Your task to perform on an android device: Show the shopping cart on walmart. Search for "usb-b" on walmart, select the first entry, and add it to the cart. Image 0: 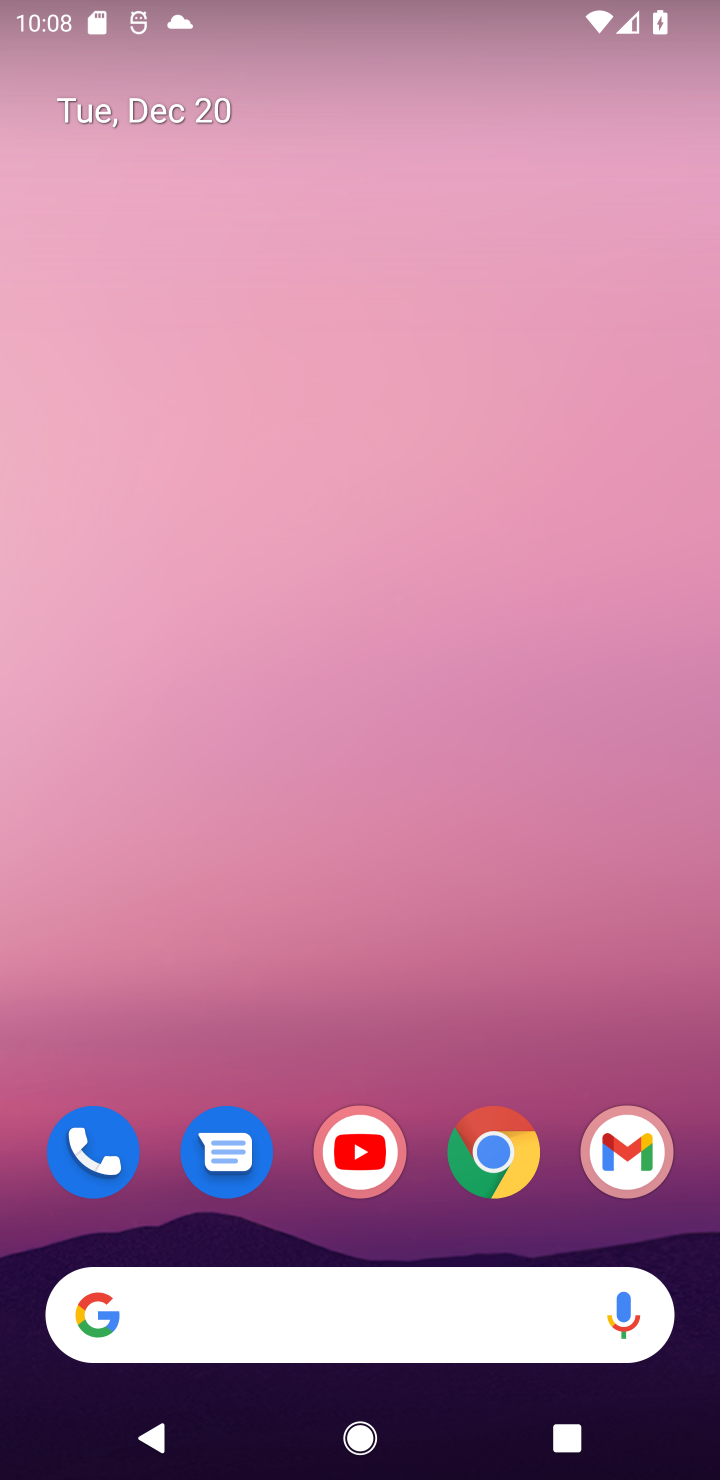
Step 0: click (508, 1140)
Your task to perform on an android device: Show the shopping cart on walmart. Search for "usb-b" on walmart, select the first entry, and add it to the cart. Image 1: 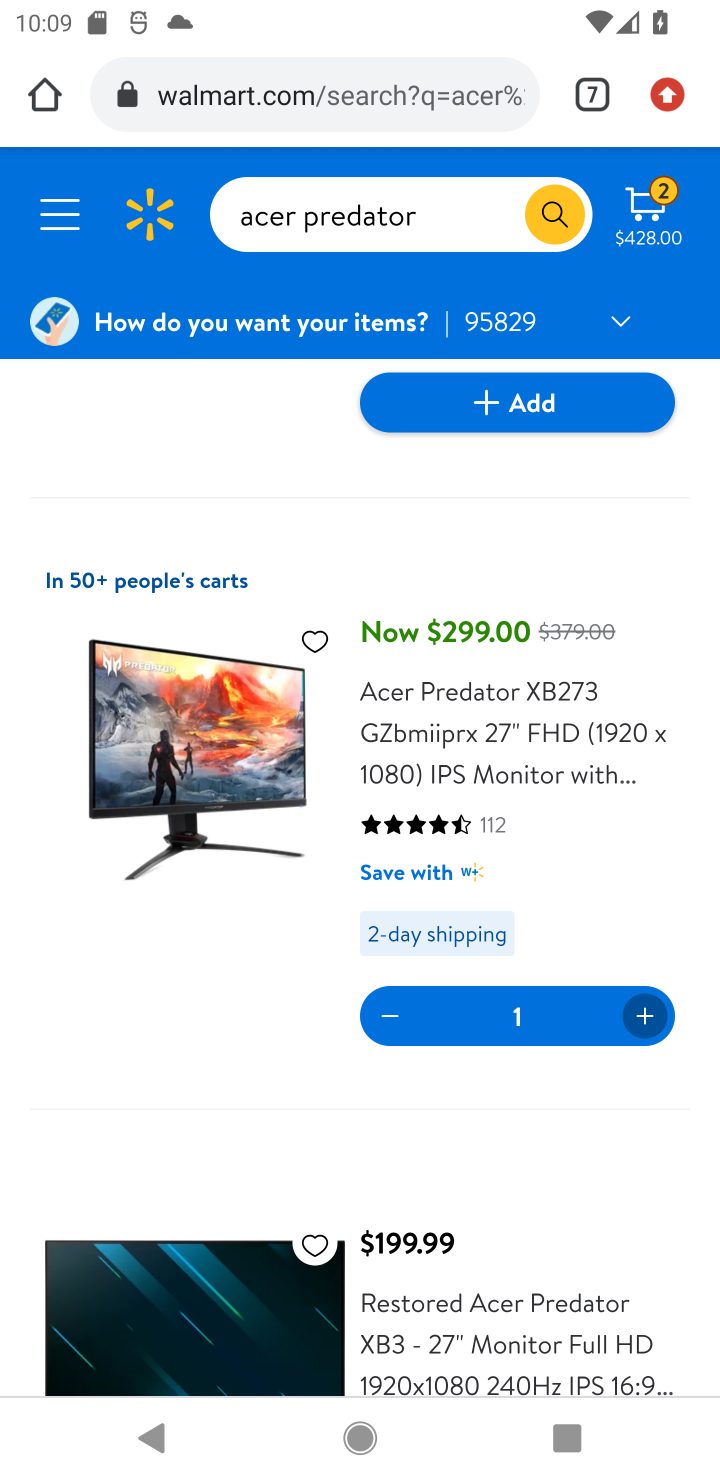
Step 1: click (363, 219)
Your task to perform on an android device: Show the shopping cart on walmart. Search for "usb-b" on walmart, select the first entry, and add it to the cart. Image 2: 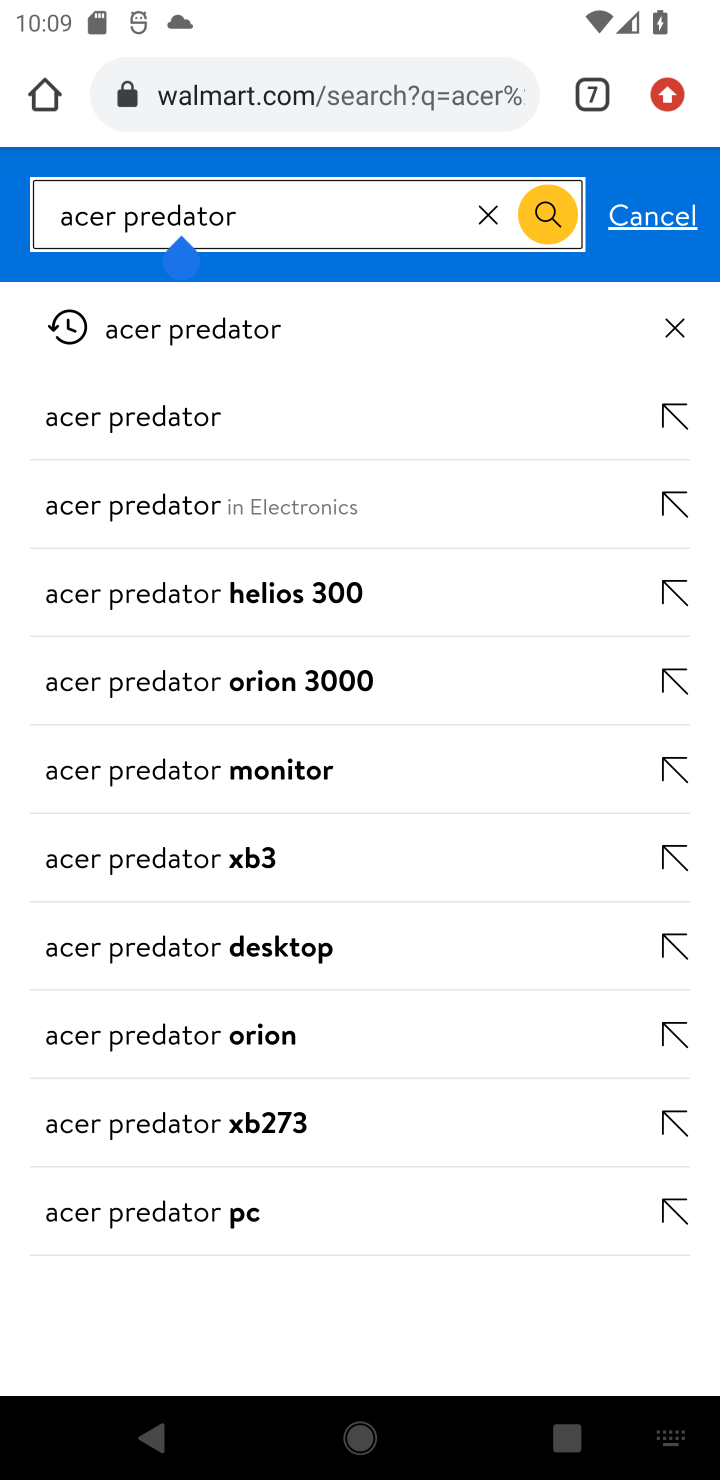
Step 2: click (479, 213)
Your task to perform on an android device: Show the shopping cart on walmart. Search for "usb-b" on walmart, select the first entry, and add it to the cart. Image 3: 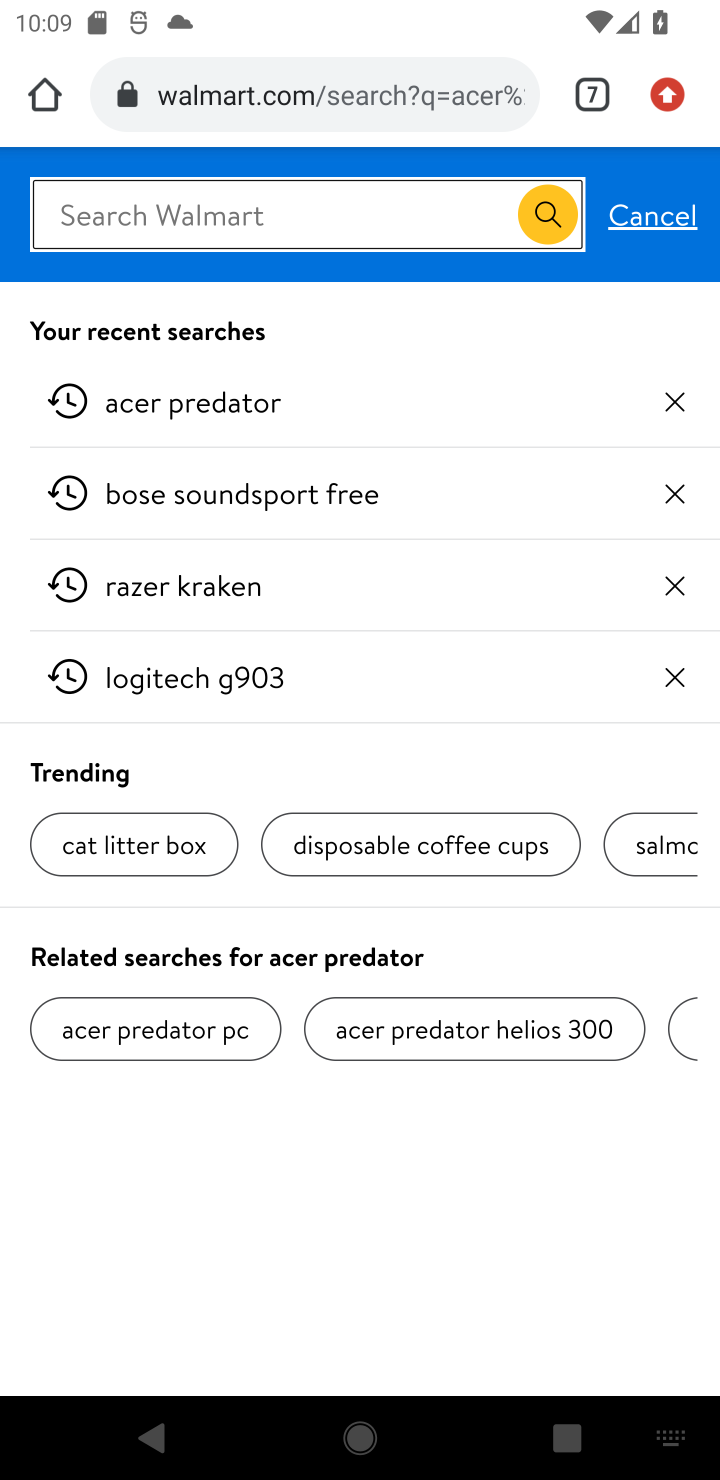
Step 3: type "usb-b"
Your task to perform on an android device: Show the shopping cart on walmart. Search for "usb-b" on walmart, select the first entry, and add it to the cart. Image 4: 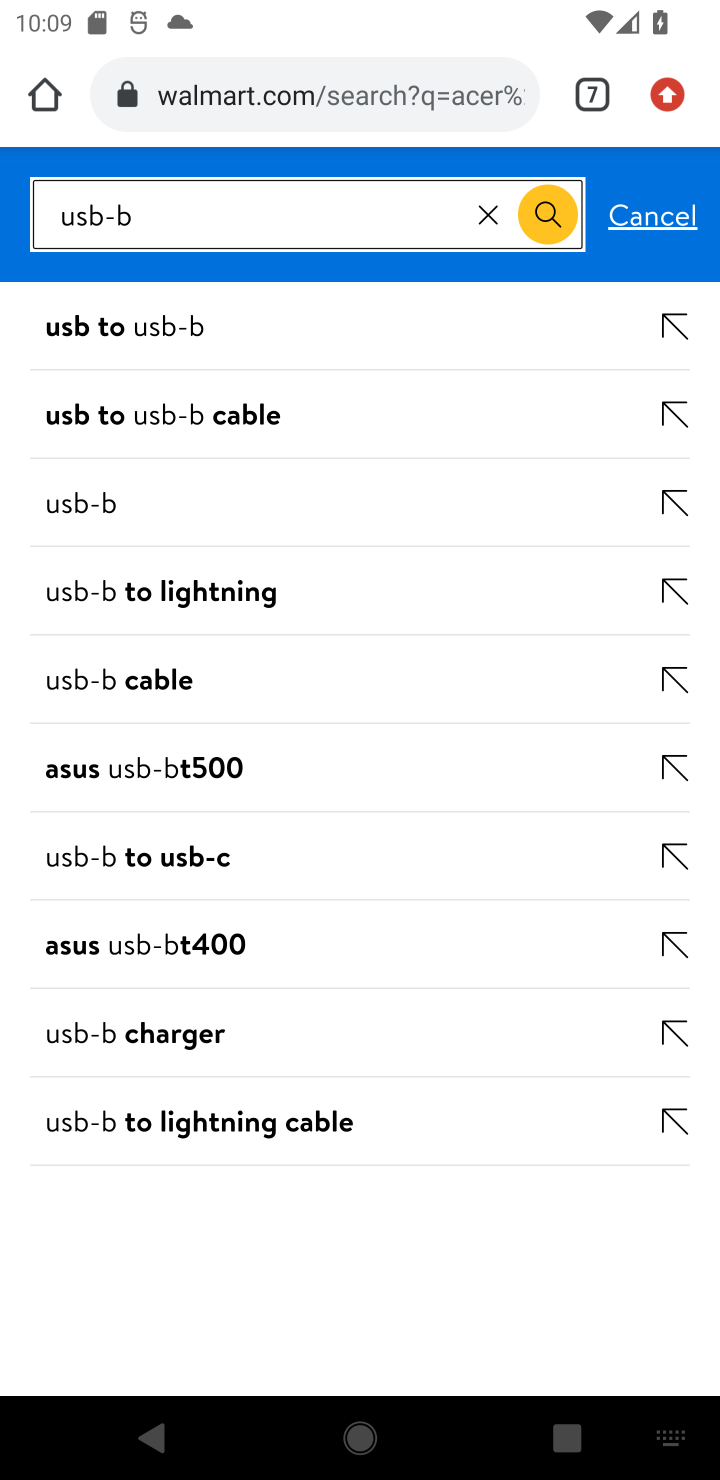
Step 4: click (555, 223)
Your task to perform on an android device: Show the shopping cart on walmart. Search for "usb-b" on walmart, select the first entry, and add it to the cart. Image 5: 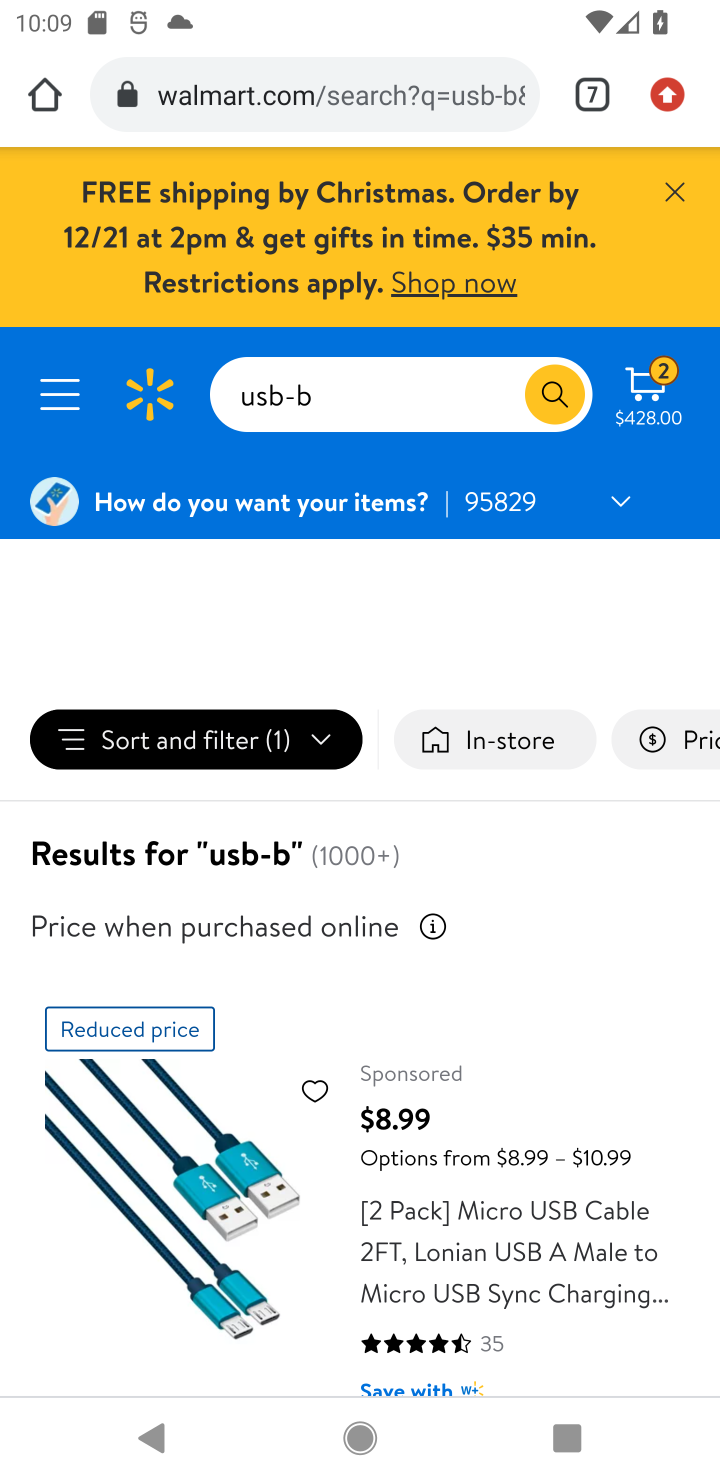
Step 5: drag from (518, 1031) to (611, 610)
Your task to perform on an android device: Show the shopping cart on walmart. Search for "usb-b" on walmart, select the first entry, and add it to the cart. Image 6: 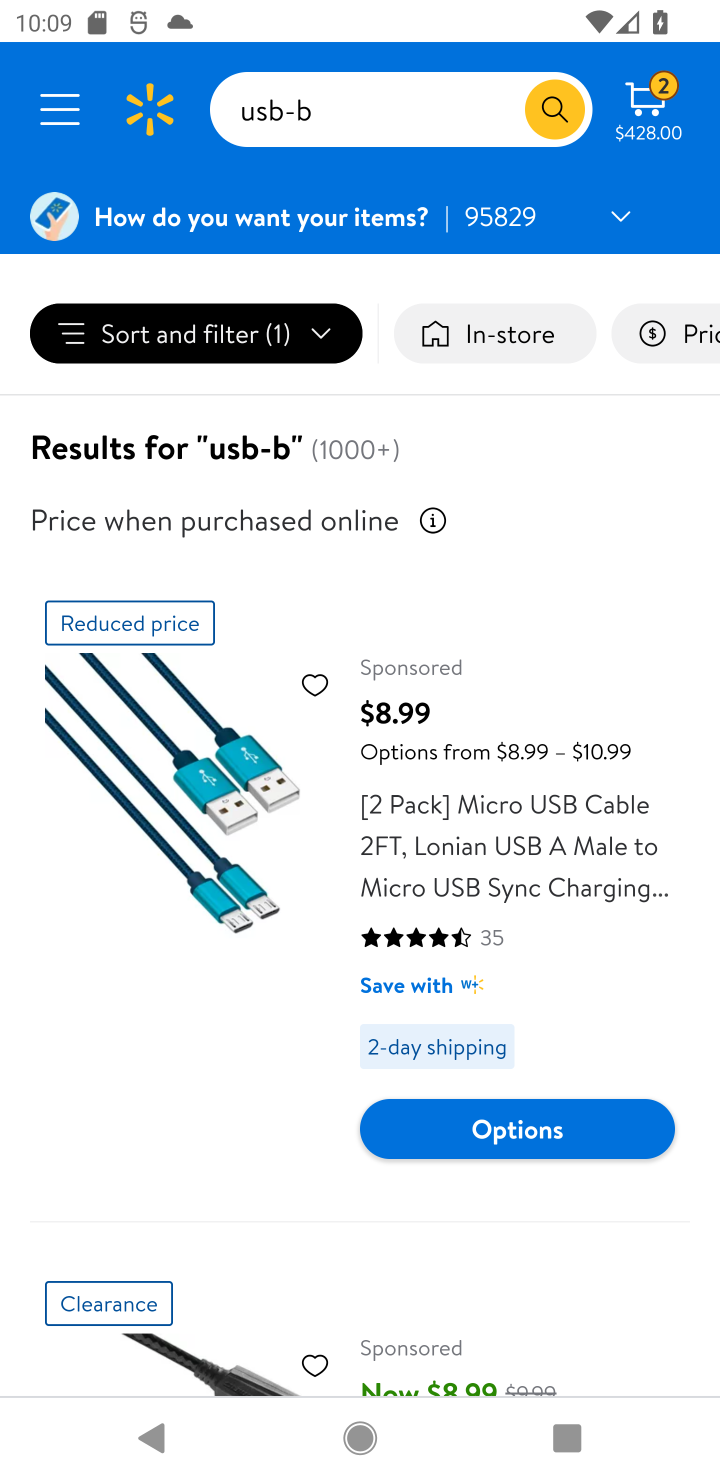
Step 6: click (618, 704)
Your task to perform on an android device: Show the shopping cart on walmart. Search for "usb-b" on walmart, select the first entry, and add it to the cart. Image 7: 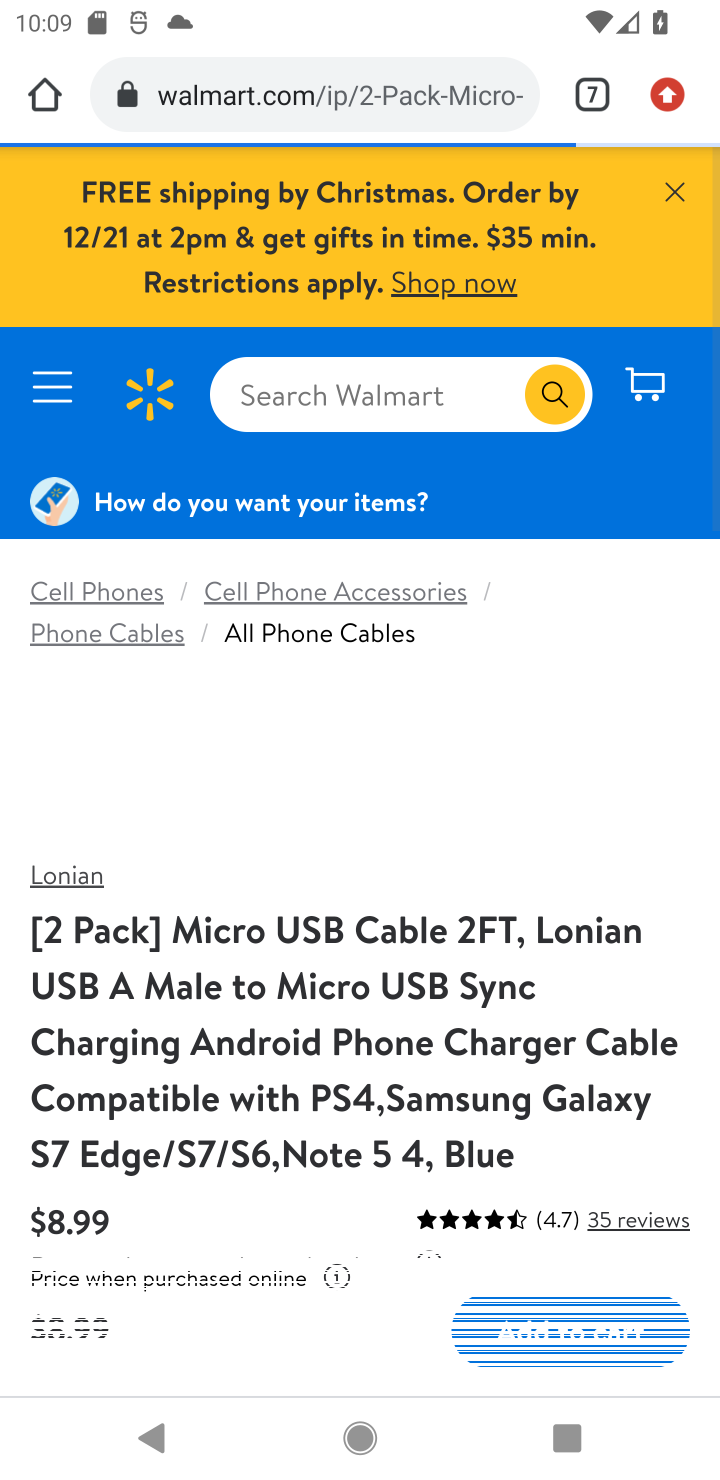
Step 7: click (494, 1258)
Your task to perform on an android device: Show the shopping cart on walmart. Search for "usb-b" on walmart, select the first entry, and add it to the cart. Image 8: 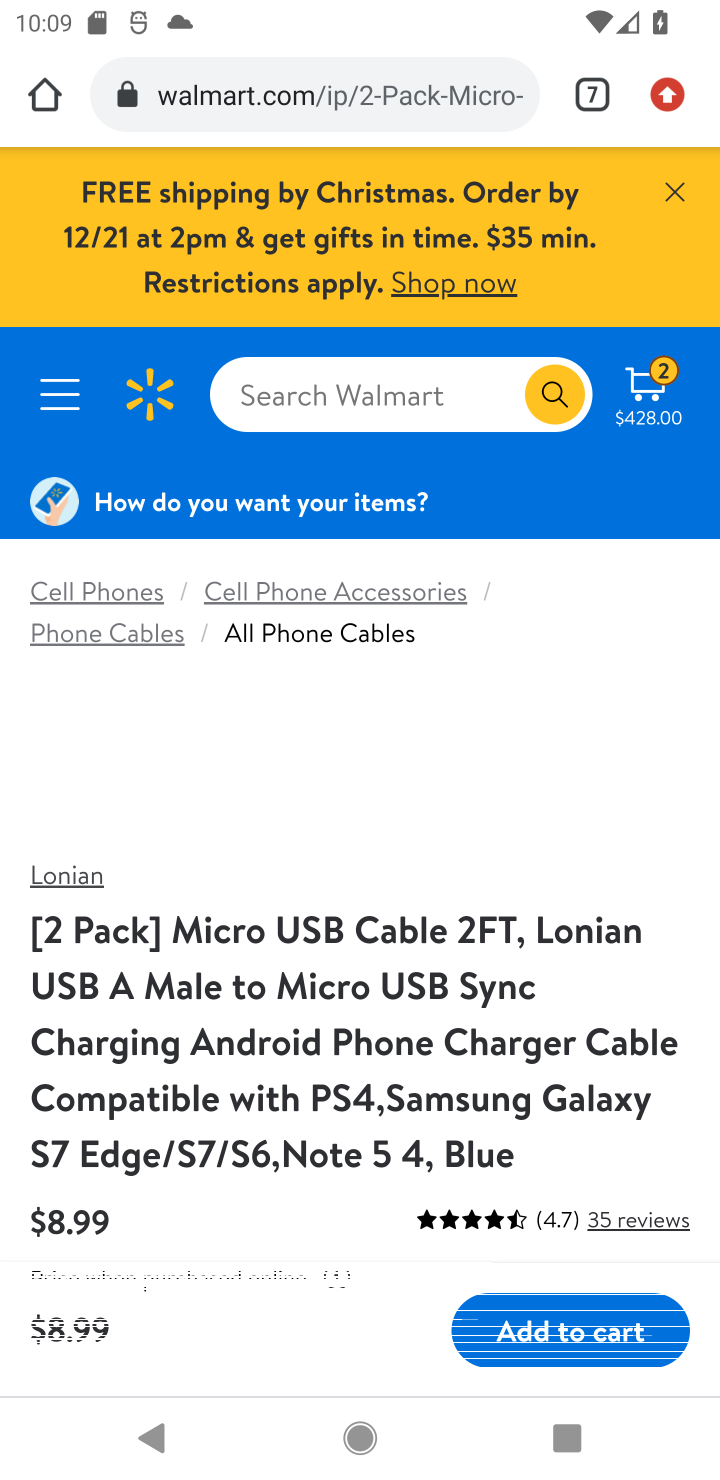
Step 8: click (546, 1313)
Your task to perform on an android device: Show the shopping cart on walmart. Search for "usb-b" on walmart, select the first entry, and add it to the cart. Image 9: 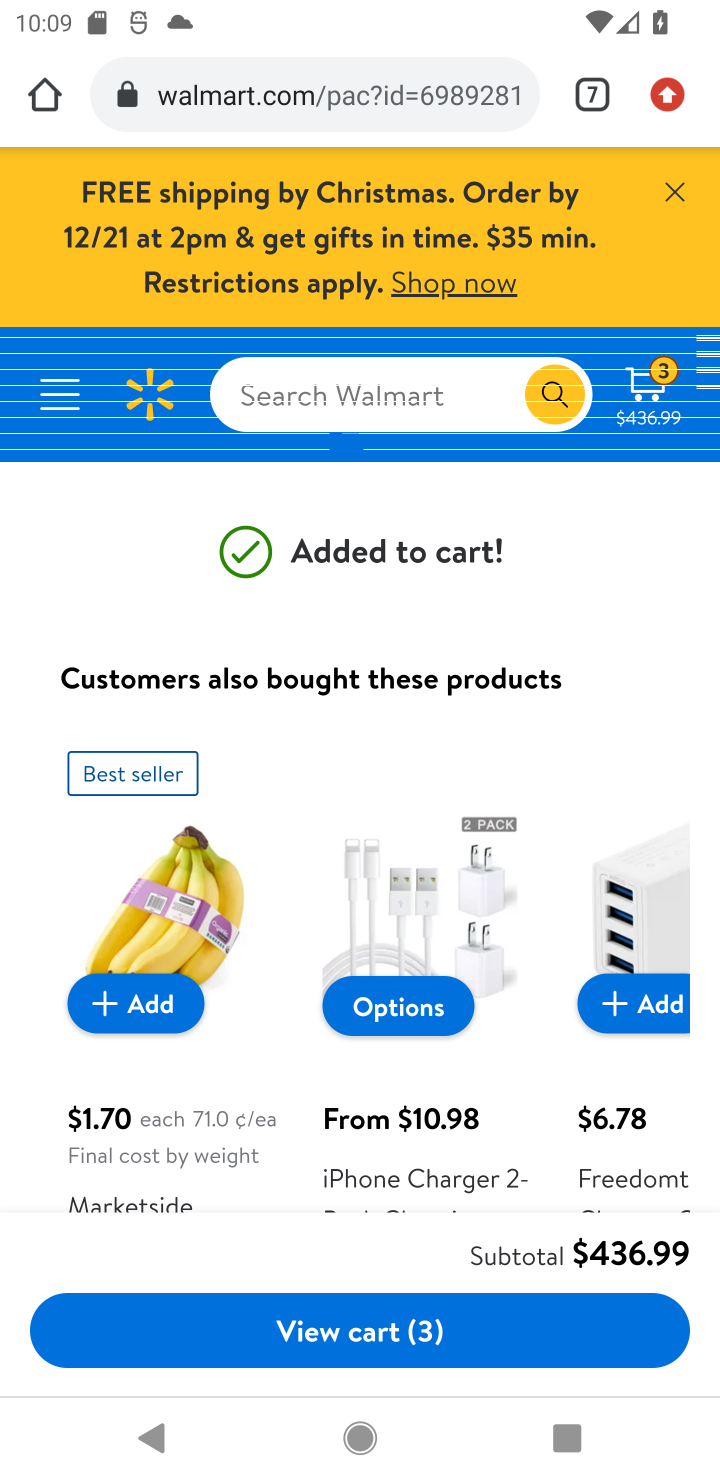
Step 9: click (638, 389)
Your task to perform on an android device: Show the shopping cart on walmart. Search for "usb-b" on walmart, select the first entry, and add it to the cart. Image 10: 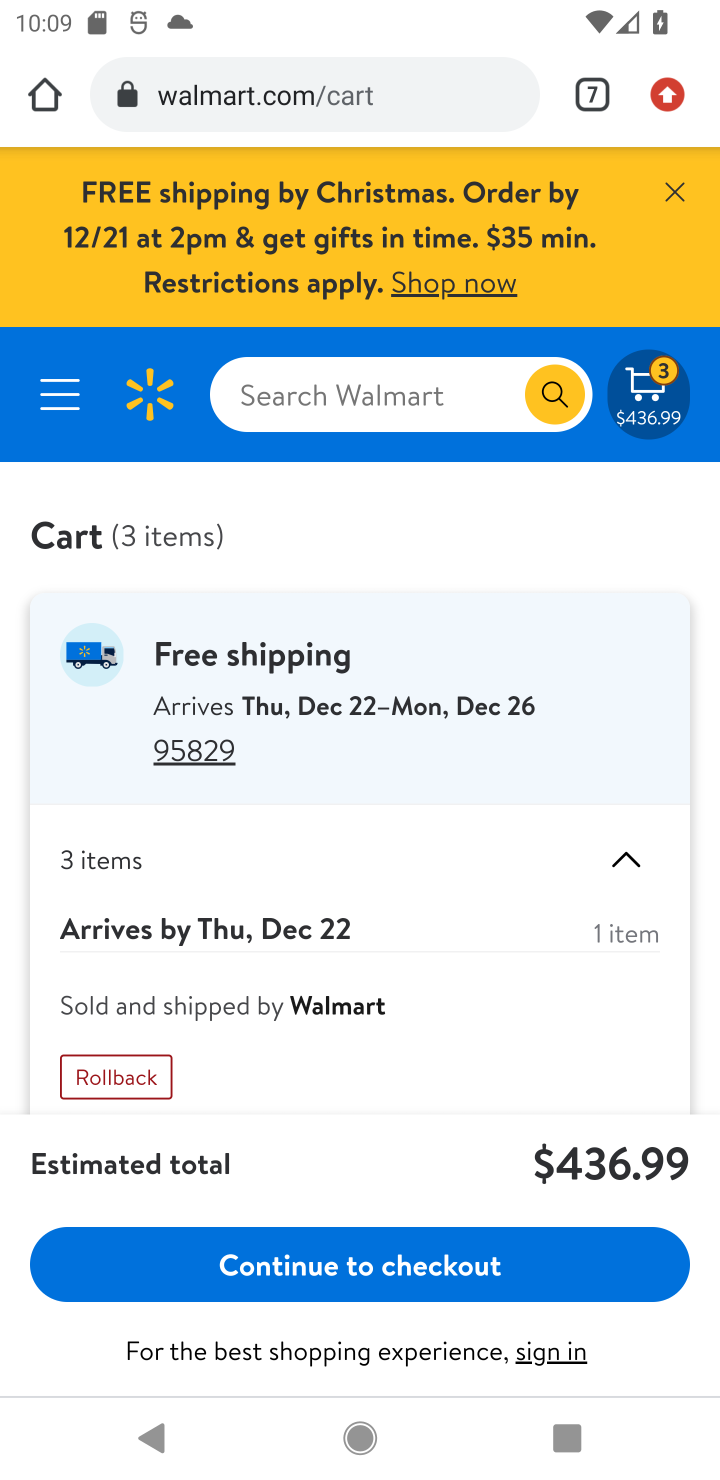
Step 10: task complete